Your task to perform on an android device: Open the phone app and click the voicemail tab. Image 0: 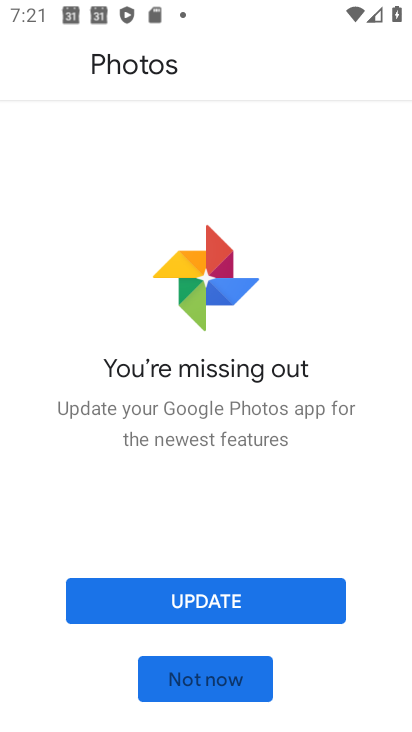
Step 0: press home button
Your task to perform on an android device: Open the phone app and click the voicemail tab. Image 1: 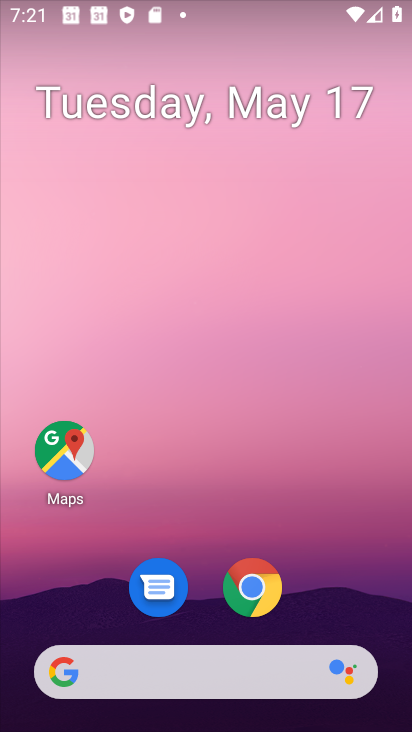
Step 1: drag from (208, 701) to (199, 289)
Your task to perform on an android device: Open the phone app and click the voicemail tab. Image 2: 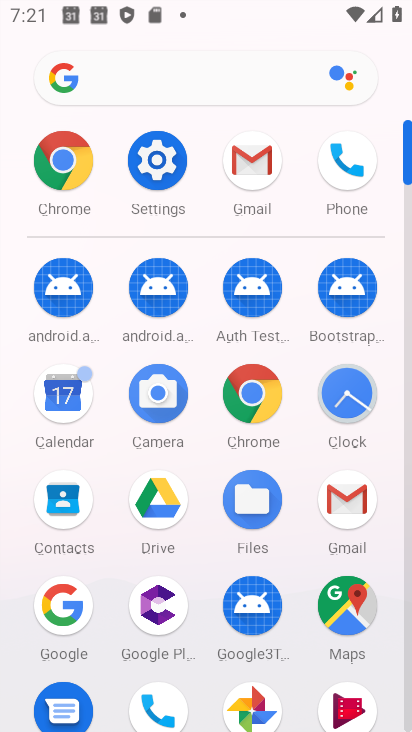
Step 2: drag from (117, 564) to (124, 502)
Your task to perform on an android device: Open the phone app and click the voicemail tab. Image 3: 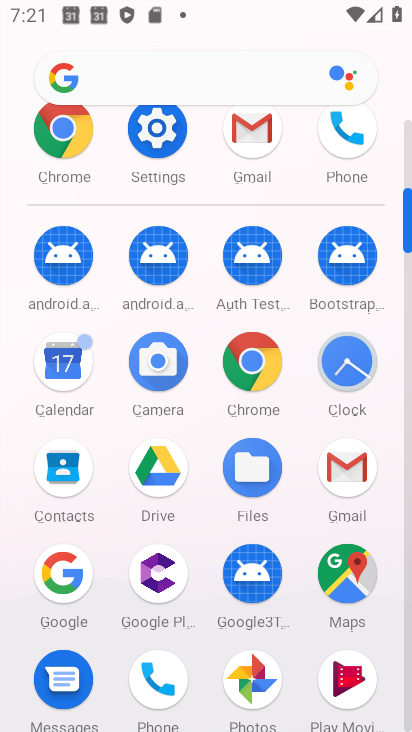
Step 3: click (172, 684)
Your task to perform on an android device: Open the phone app and click the voicemail tab. Image 4: 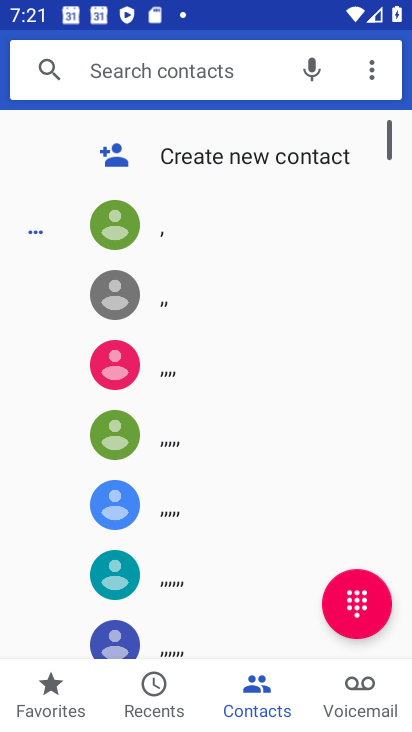
Step 4: click (204, 168)
Your task to perform on an android device: Open the phone app and click the voicemail tab. Image 5: 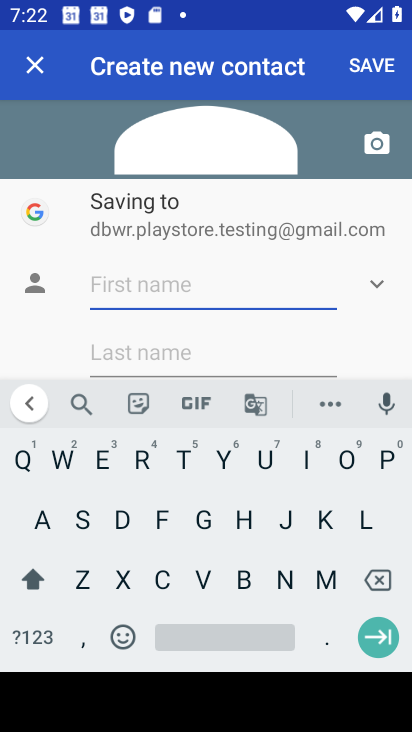
Step 5: click (27, 59)
Your task to perform on an android device: Open the phone app and click the voicemail tab. Image 6: 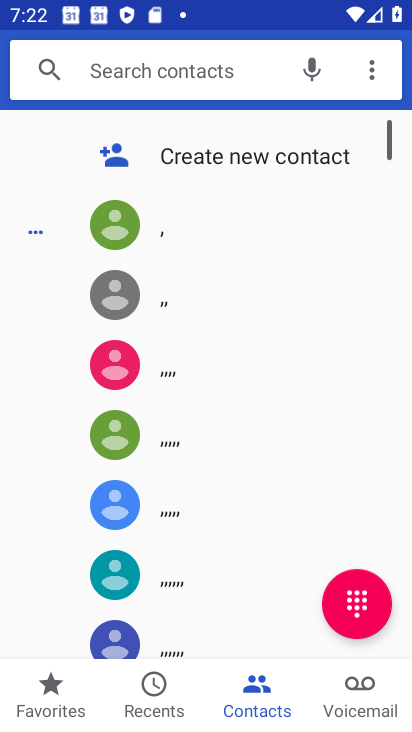
Step 6: click (337, 700)
Your task to perform on an android device: Open the phone app and click the voicemail tab. Image 7: 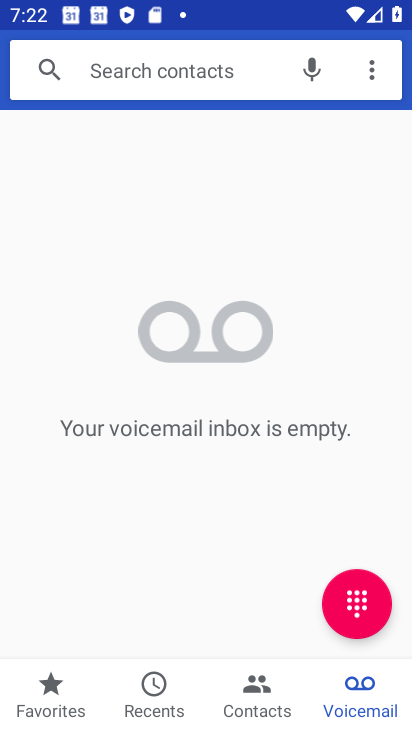
Step 7: task complete